Your task to perform on an android device: turn notification dots on Image 0: 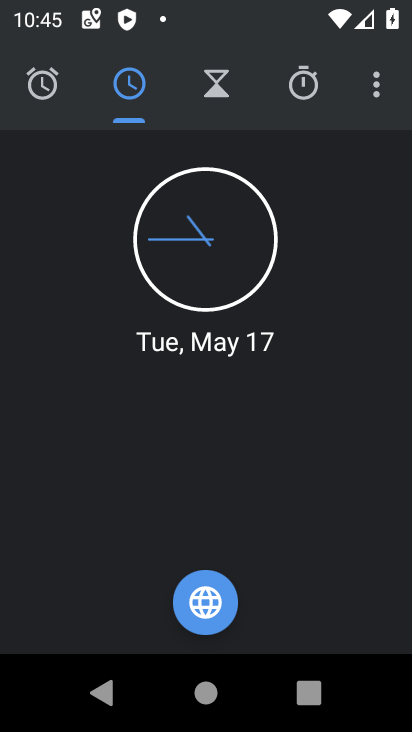
Step 0: press home button
Your task to perform on an android device: turn notification dots on Image 1: 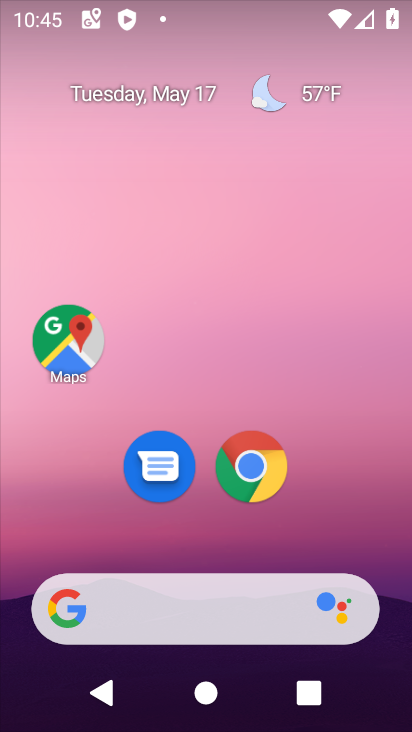
Step 1: drag from (207, 551) to (7, 388)
Your task to perform on an android device: turn notification dots on Image 2: 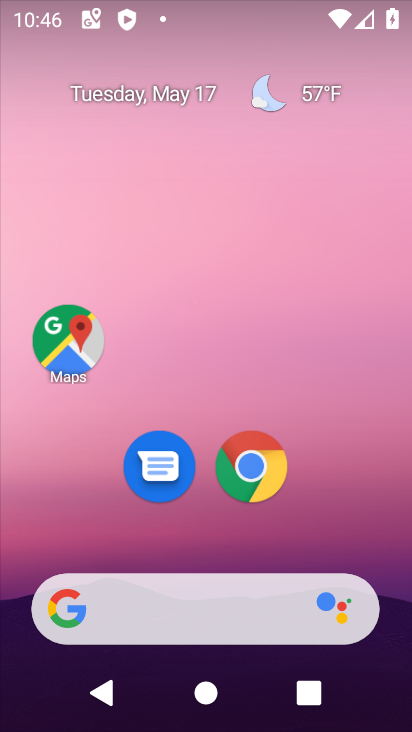
Step 2: drag from (213, 570) to (162, 25)
Your task to perform on an android device: turn notification dots on Image 3: 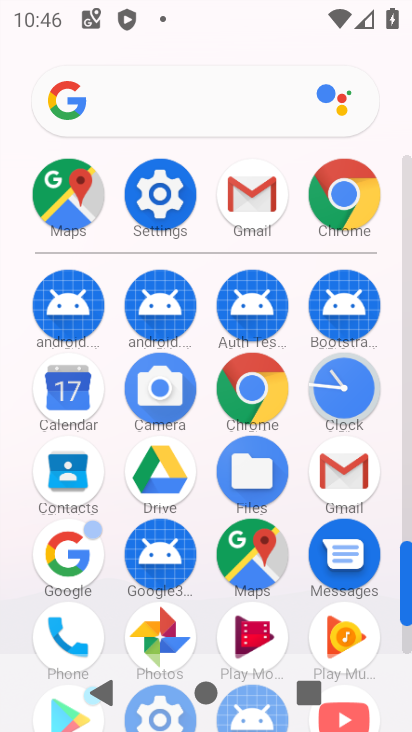
Step 3: click (145, 208)
Your task to perform on an android device: turn notification dots on Image 4: 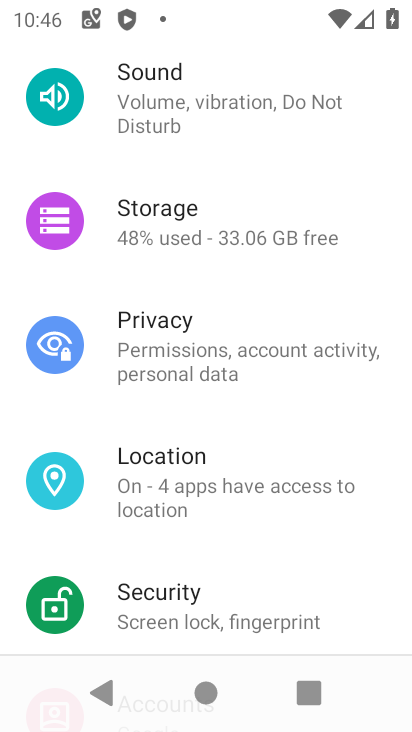
Step 4: drag from (223, 229) to (183, 673)
Your task to perform on an android device: turn notification dots on Image 5: 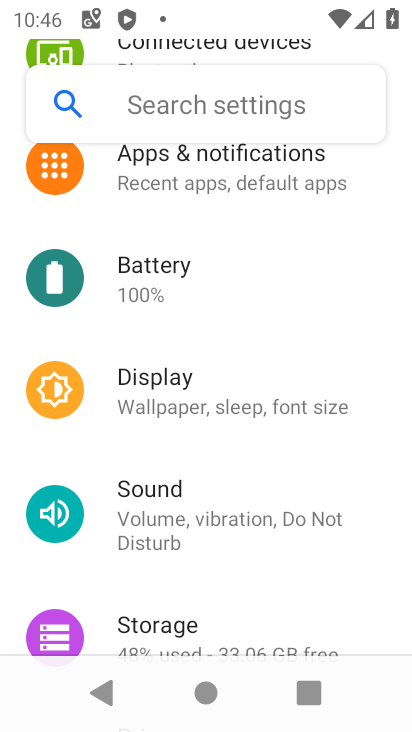
Step 5: click (234, 201)
Your task to perform on an android device: turn notification dots on Image 6: 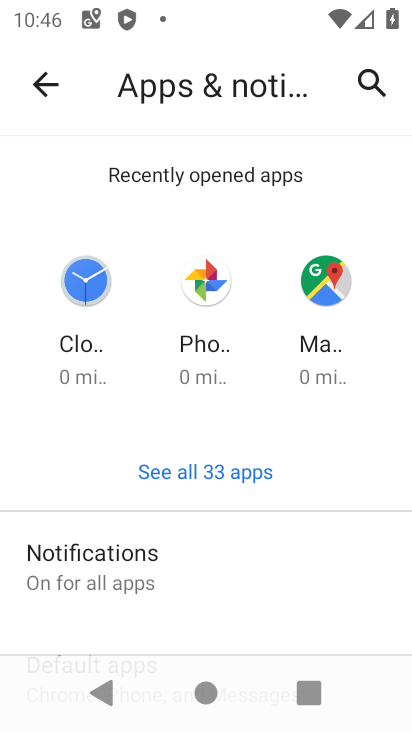
Step 6: click (205, 574)
Your task to perform on an android device: turn notification dots on Image 7: 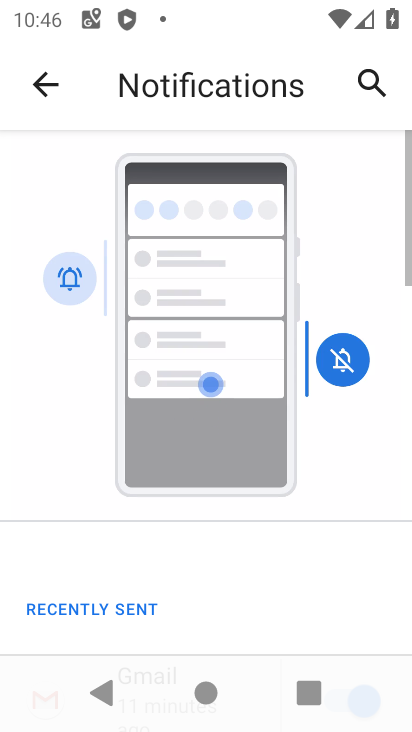
Step 7: drag from (232, 569) to (232, 49)
Your task to perform on an android device: turn notification dots on Image 8: 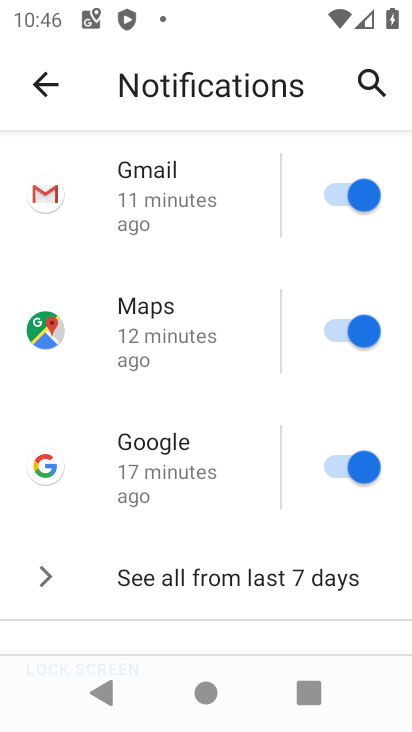
Step 8: drag from (143, 633) to (142, 68)
Your task to perform on an android device: turn notification dots on Image 9: 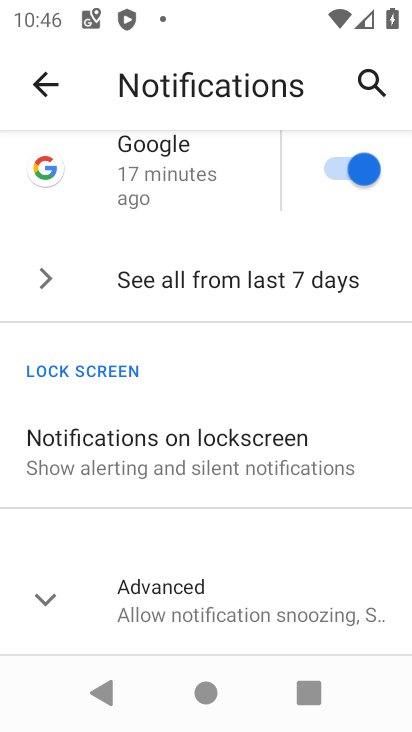
Step 9: click (154, 571)
Your task to perform on an android device: turn notification dots on Image 10: 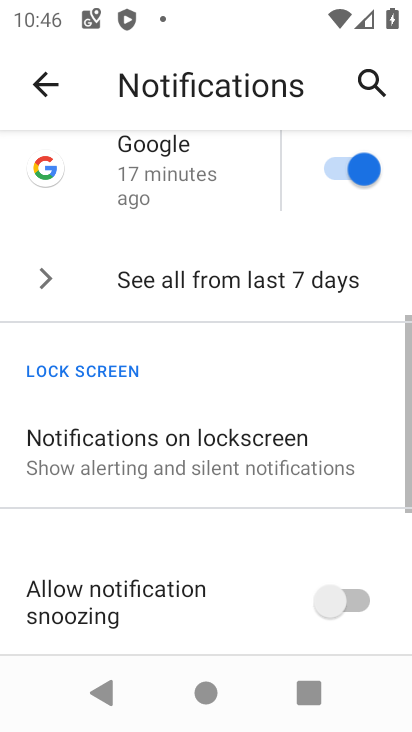
Step 10: task complete